Your task to perform on an android device: turn off location history Image 0: 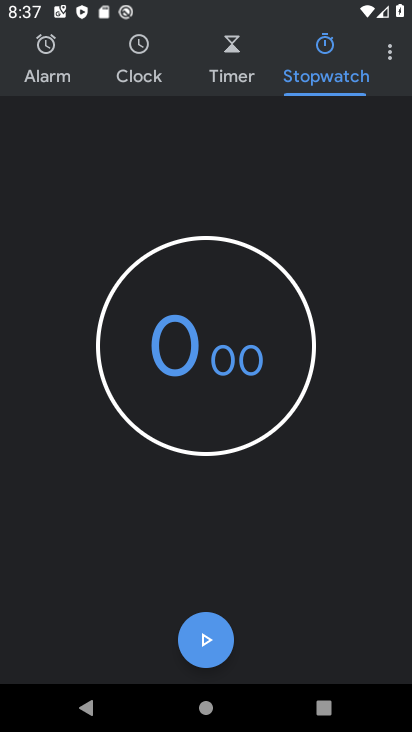
Step 0: press home button
Your task to perform on an android device: turn off location history Image 1: 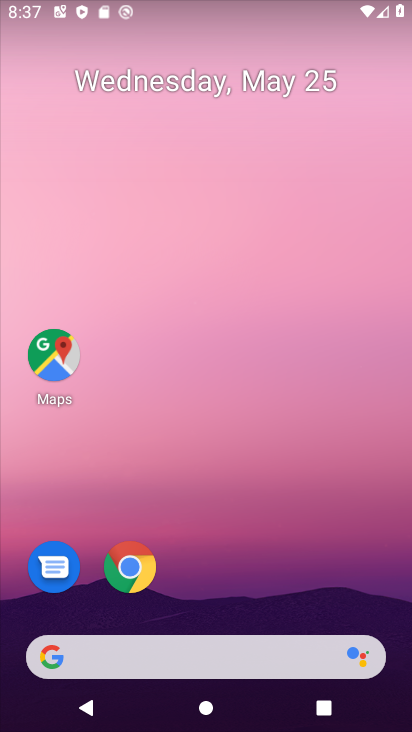
Step 1: drag from (285, 604) to (266, 64)
Your task to perform on an android device: turn off location history Image 2: 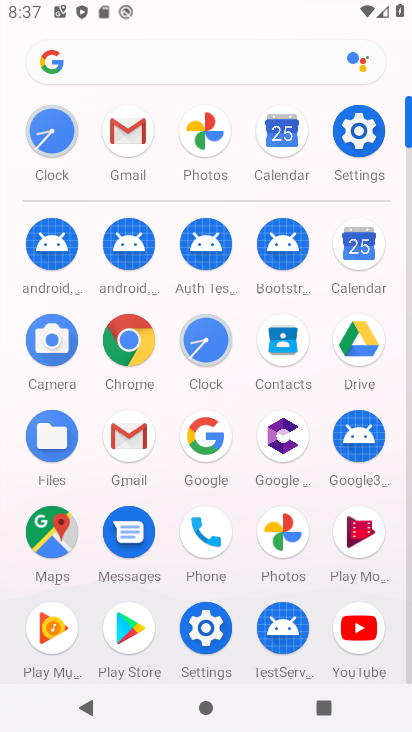
Step 2: click (346, 127)
Your task to perform on an android device: turn off location history Image 3: 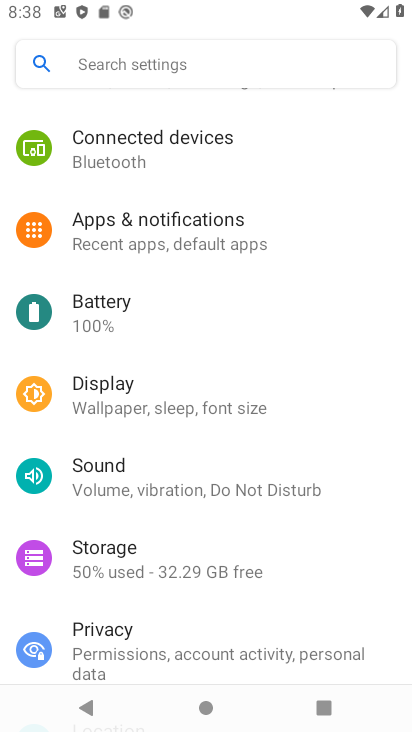
Step 3: drag from (164, 609) to (188, 370)
Your task to perform on an android device: turn off location history Image 4: 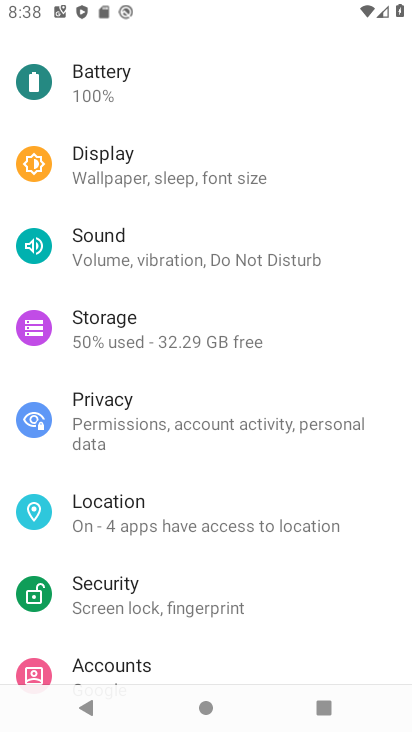
Step 4: click (225, 513)
Your task to perform on an android device: turn off location history Image 5: 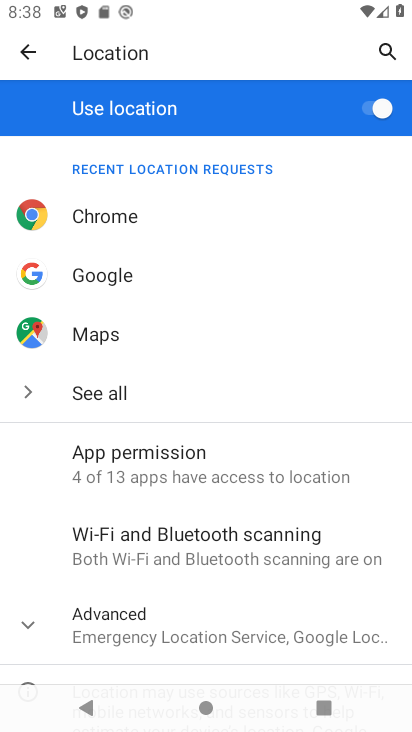
Step 5: task complete